Your task to perform on an android device: What's the weather? Image 0: 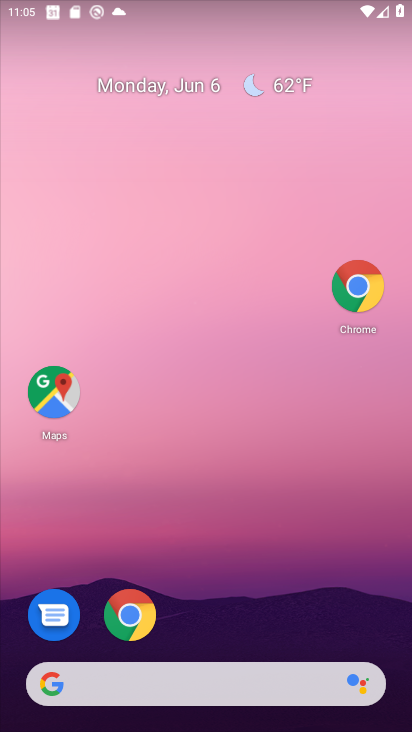
Step 0: drag from (222, 558) to (157, 21)
Your task to perform on an android device: What's the weather? Image 1: 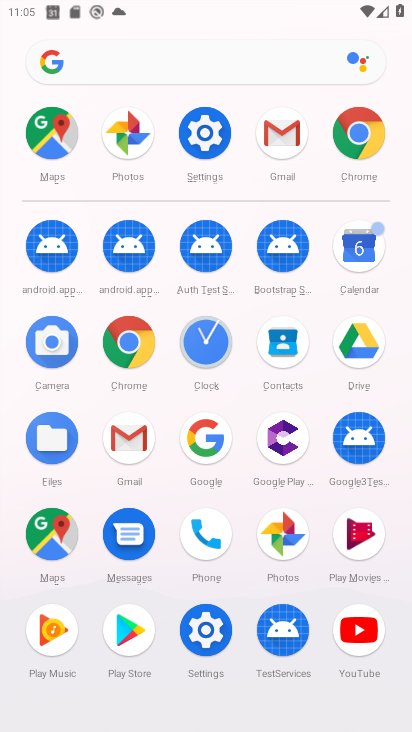
Step 1: press back button
Your task to perform on an android device: What's the weather? Image 2: 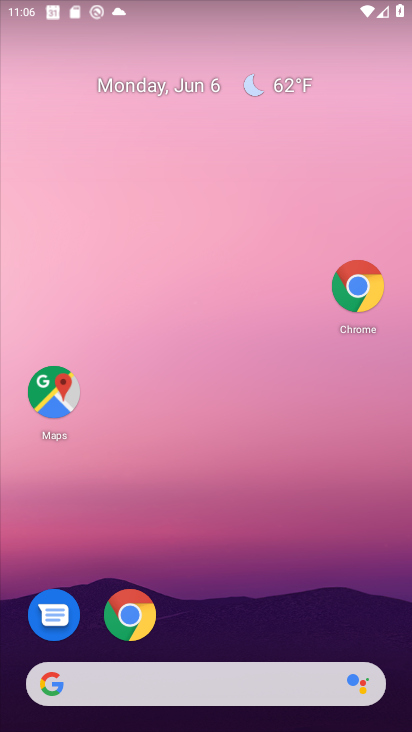
Step 2: drag from (1, 125) to (411, 540)
Your task to perform on an android device: What's the weather? Image 3: 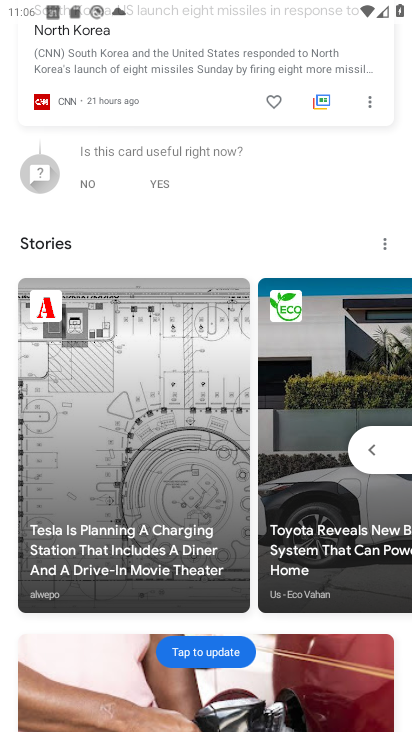
Step 3: drag from (164, 93) to (157, 560)
Your task to perform on an android device: What's the weather? Image 4: 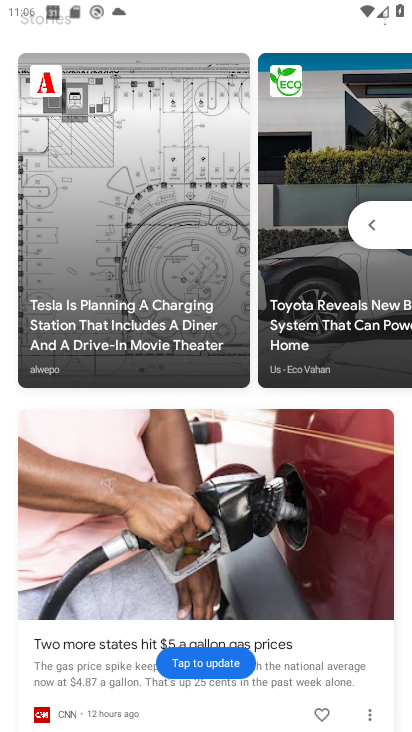
Step 4: drag from (154, 413) to (148, 584)
Your task to perform on an android device: What's the weather? Image 5: 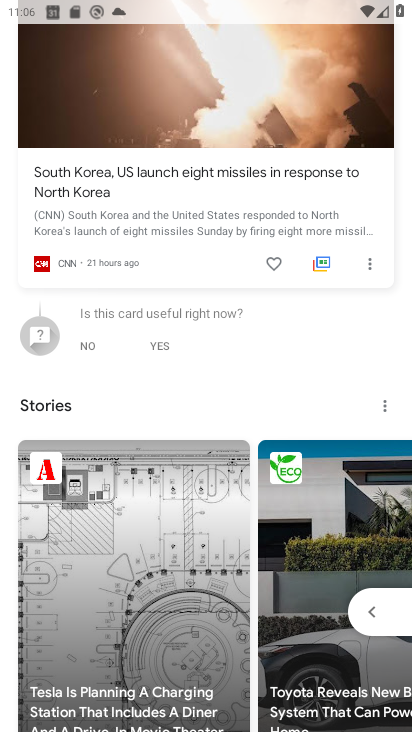
Step 5: drag from (179, 249) to (160, 676)
Your task to perform on an android device: What's the weather? Image 6: 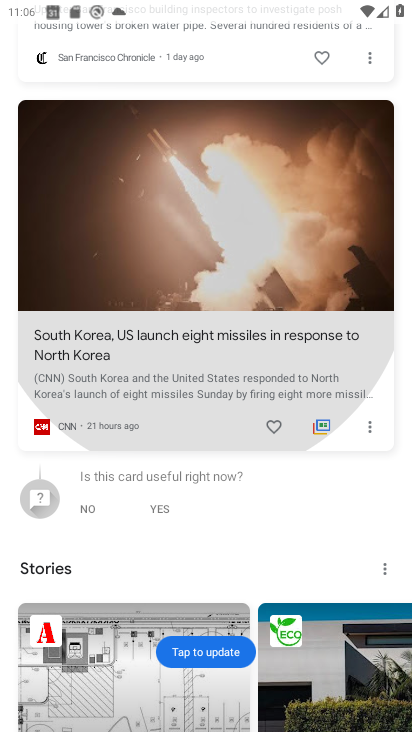
Step 6: drag from (205, 180) to (178, 601)
Your task to perform on an android device: What's the weather? Image 7: 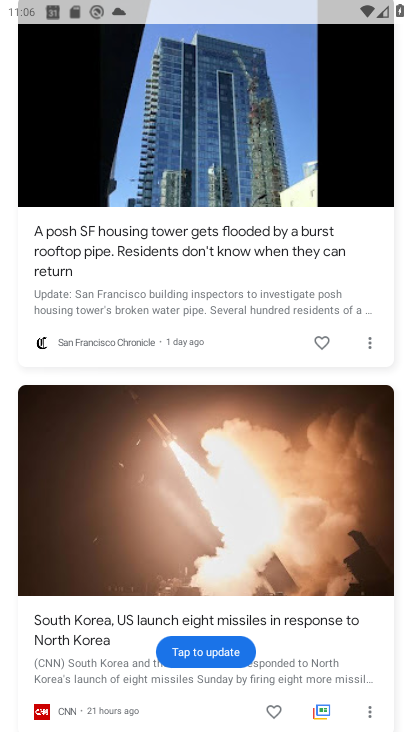
Step 7: drag from (214, 174) to (200, 464)
Your task to perform on an android device: What's the weather? Image 8: 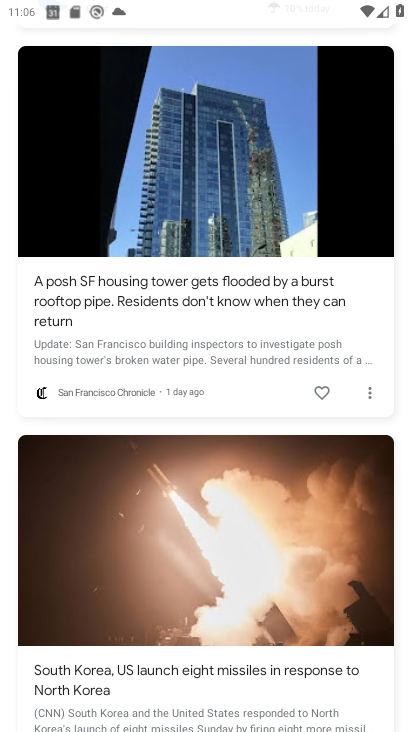
Step 8: drag from (207, 108) to (175, 469)
Your task to perform on an android device: What's the weather? Image 9: 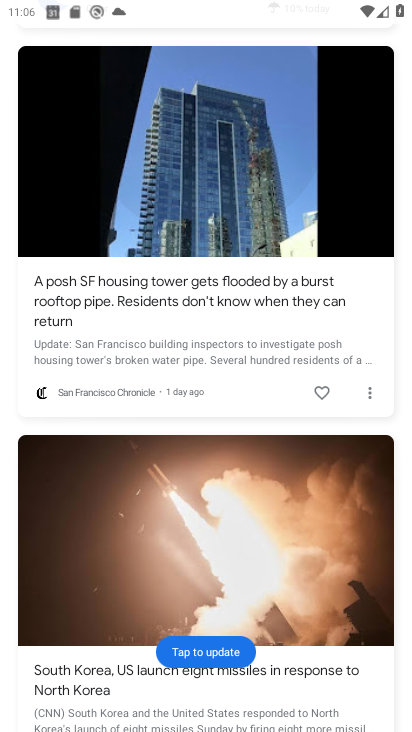
Step 9: drag from (196, 140) to (156, 540)
Your task to perform on an android device: What's the weather? Image 10: 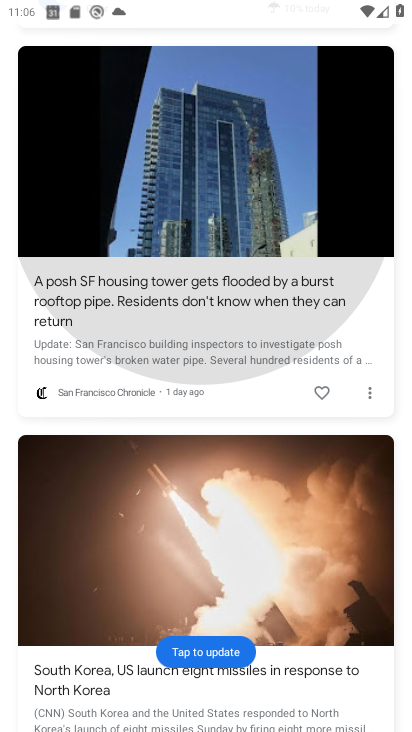
Step 10: drag from (180, 122) to (159, 509)
Your task to perform on an android device: What's the weather? Image 11: 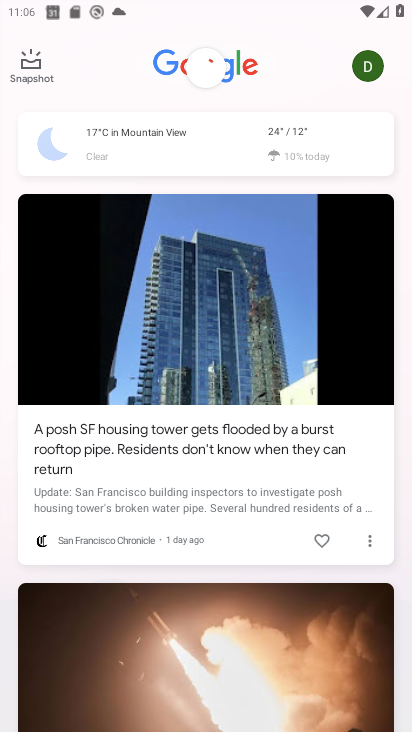
Step 11: click (180, 136)
Your task to perform on an android device: What's the weather? Image 12: 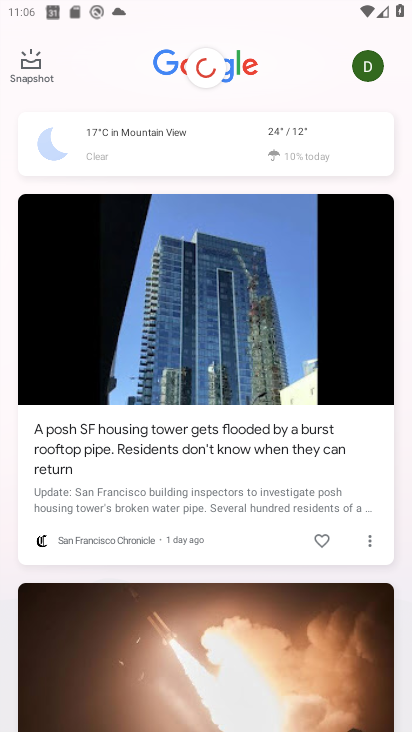
Step 12: click (183, 137)
Your task to perform on an android device: What's the weather? Image 13: 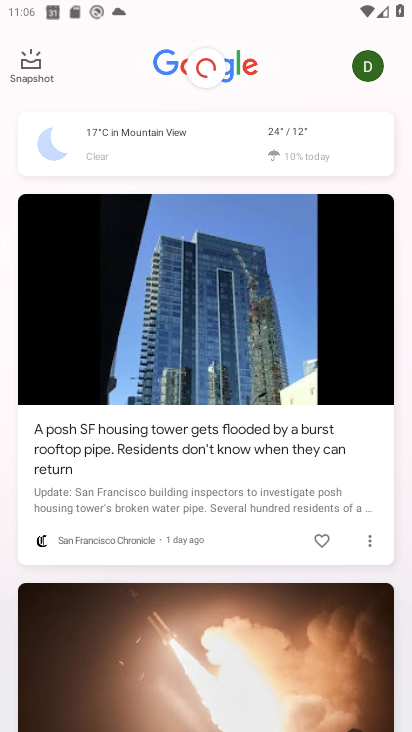
Step 13: click (183, 137)
Your task to perform on an android device: What's the weather? Image 14: 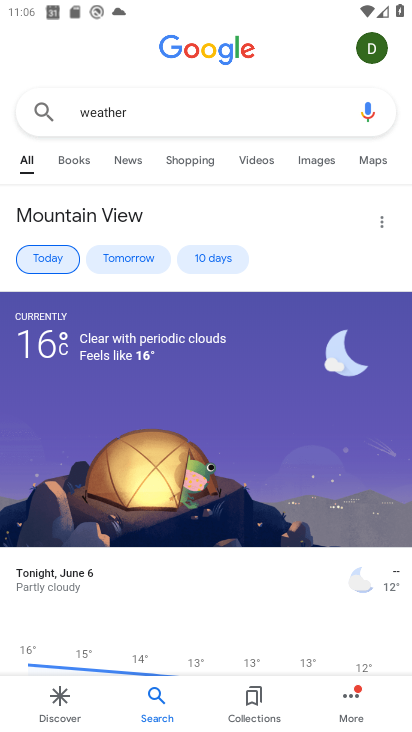
Step 14: click (168, 114)
Your task to perform on an android device: What's the weather? Image 15: 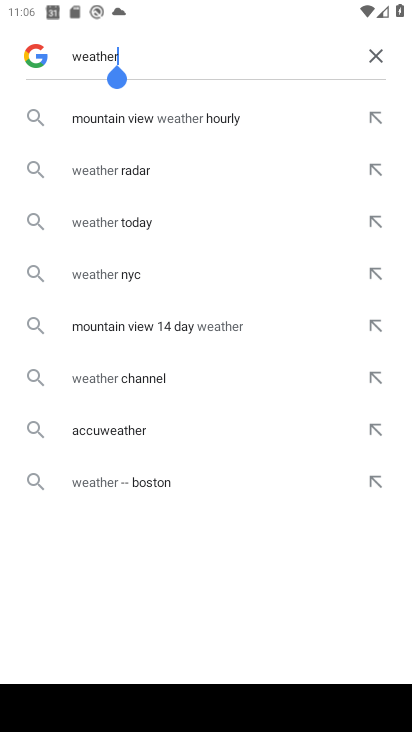
Step 15: task complete